Your task to perform on an android device: turn off javascript in the chrome app Image 0: 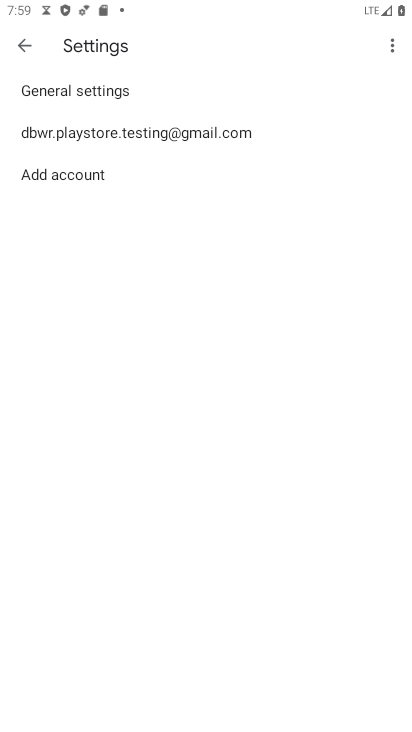
Step 0: press home button
Your task to perform on an android device: turn off javascript in the chrome app Image 1: 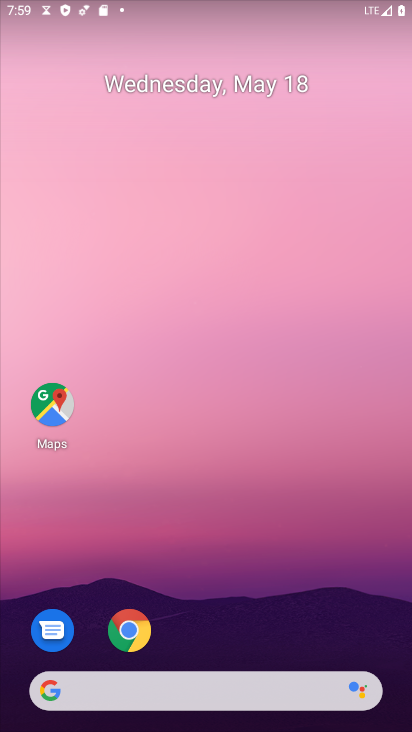
Step 1: drag from (195, 373) to (199, 98)
Your task to perform on an android device: turn off javascript in the chrome app Image 2: 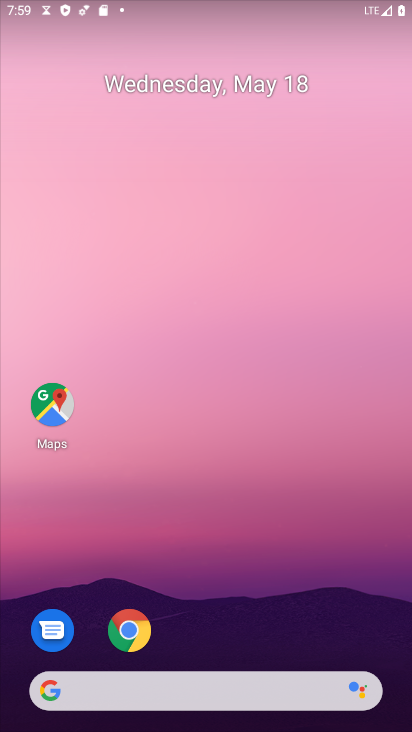
Step 2: drag from (278, 602) to (311, 113)
Your task to perform on an android device: turn off javascript in the chrome app Image 3: 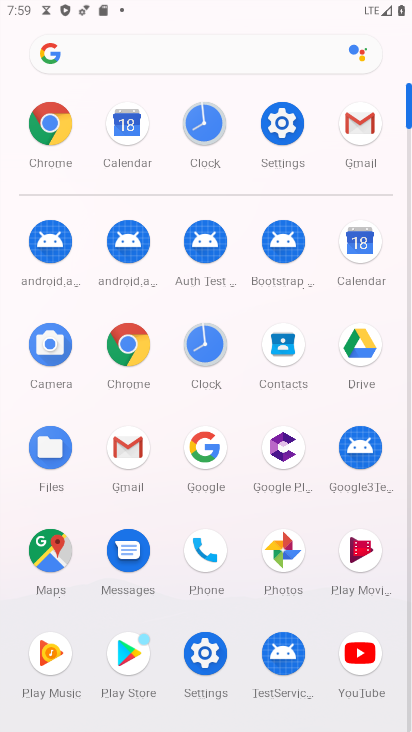
Step 3: drag from (360, 176) to (363, 481)
Your task to perform on an android device: turn off javascript in the chrome app Image 4: 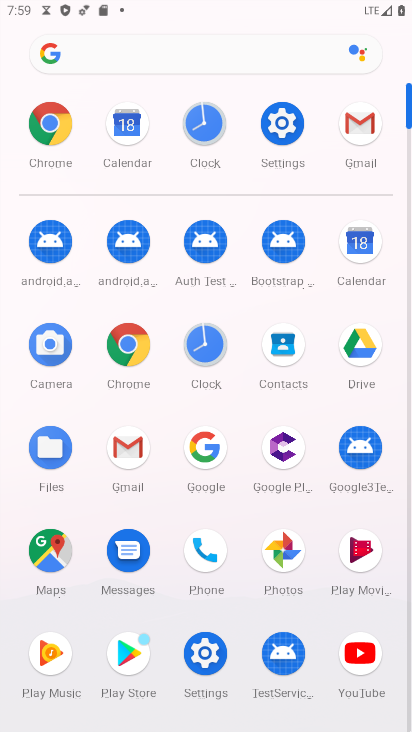
Step 4: click (47, 139)
Your task to perform on an android device: turn off javascript in the chrome app Image 5: 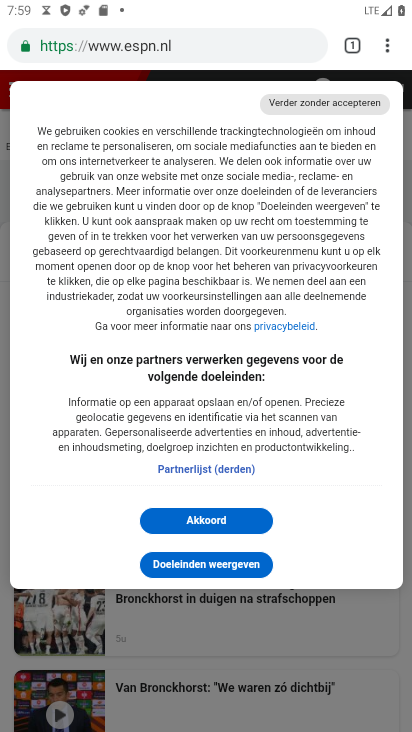
Step 5: drag from (392, 50) to (237, 554)
Your task to perform on an android device: turn off javascript in the chrome app Image 6: 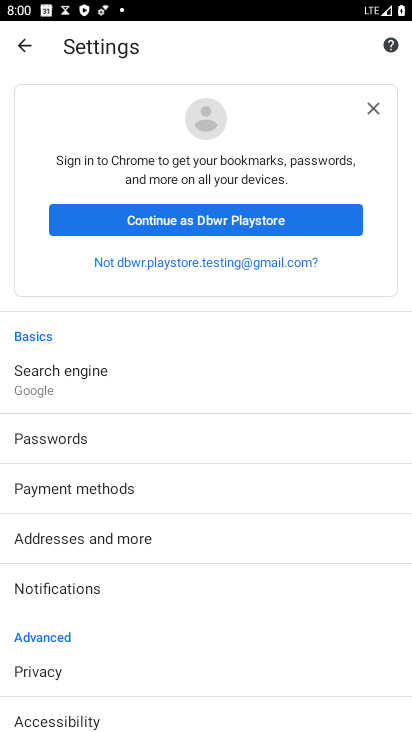
Step 6: drag from (180, 655) to (167, 283)
Your task to perform on an android device: turn off javascript in the chrome app Image 7: 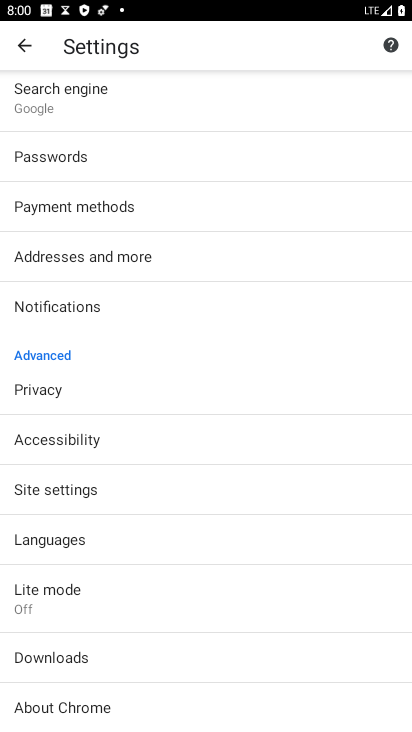
Step 7: click (86, 489)
Your task to perform on an android device: turn off javascript in the chrome app Image 8: 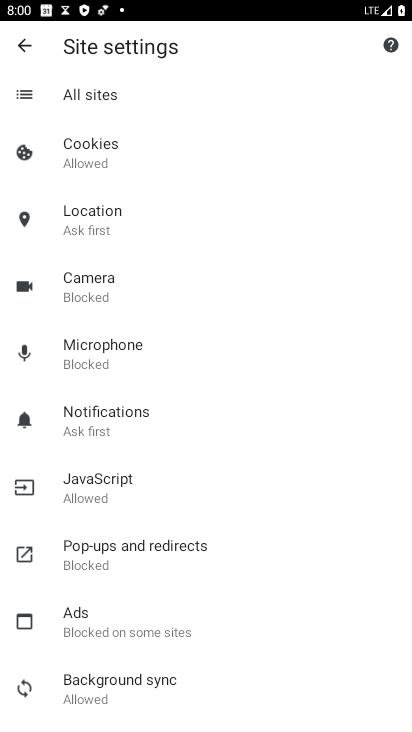
Step 8: click (127, 493)
Your task to perform on an android device: turn off javascript in the chrome app Image 9: 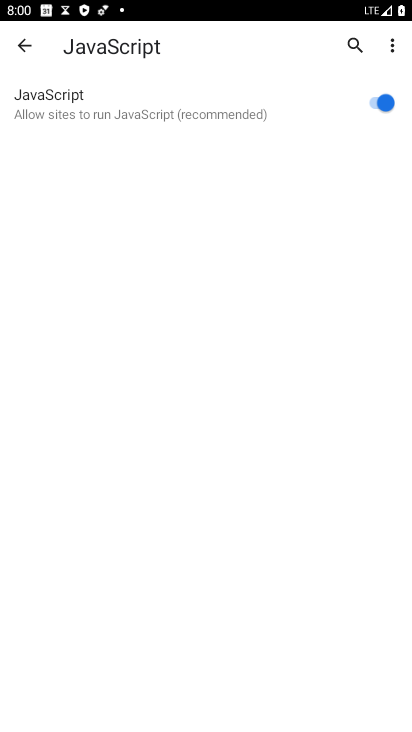
Step 9: click (380, 88)
Your task to perform on an android device: turn off javascript in the chrome app Image 10: 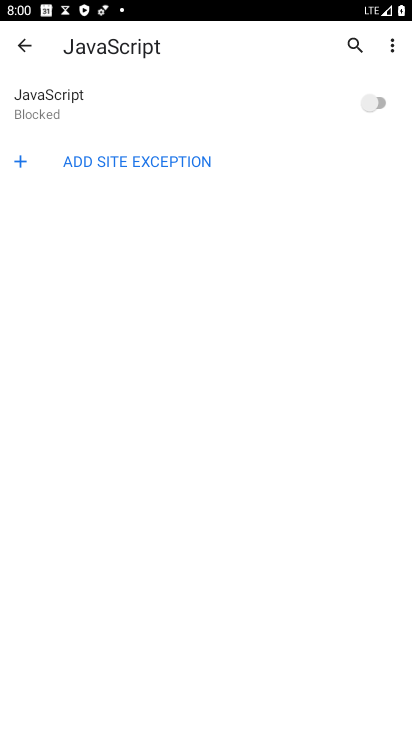
Step 10: task complete